Your task to perform on an android device: What is the news today? Image 0: 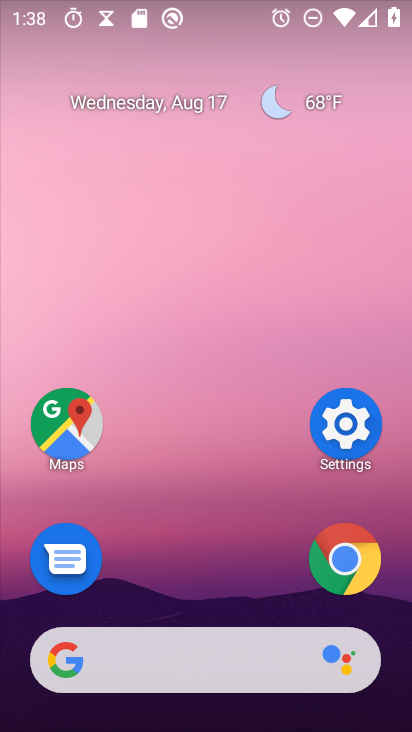
Step 0: click (139, 654)
Your task to perform on an android device: What is the news today? Image 1: 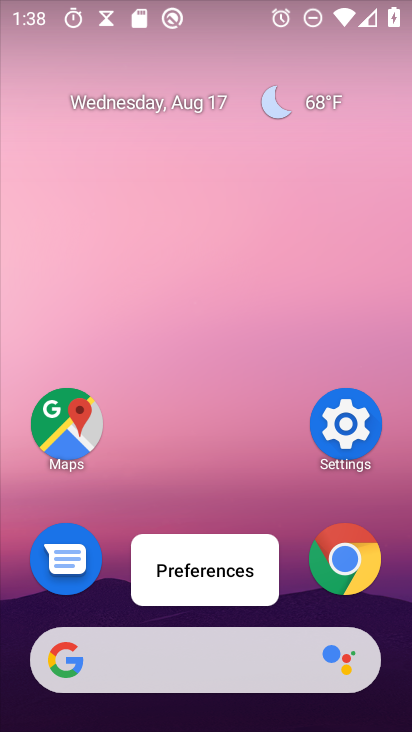
Step 1: click (164, 647)
Your task to perform on an android device: What is the news today? Image 2: 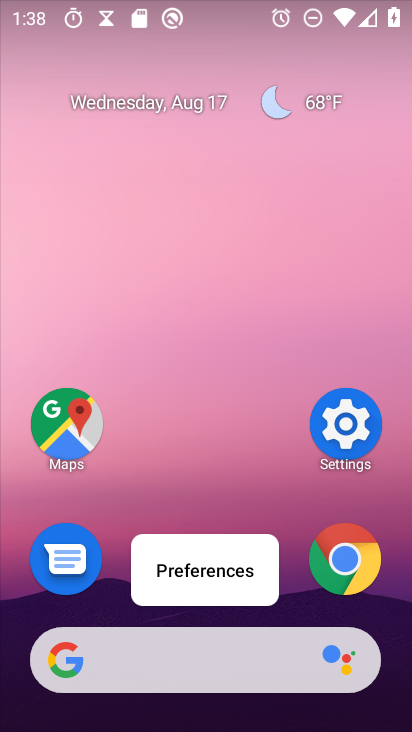
Step 2: click (164, 647)
Your task to perform on an android device: What is the news today? Image 3: 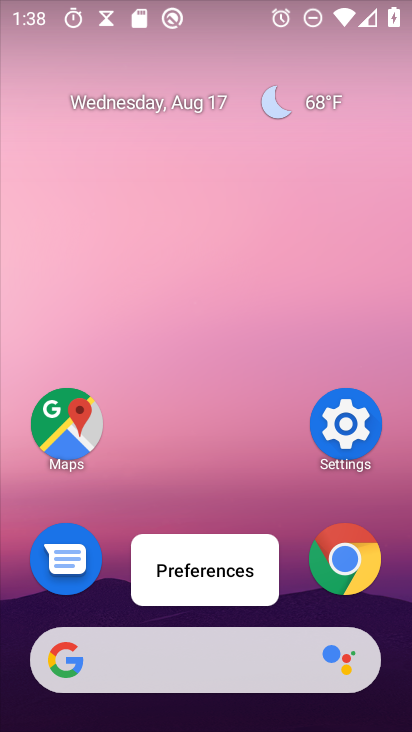
Step 3: click (179, 650)
Your task to perform on an android device: What is the news today? Image 4: 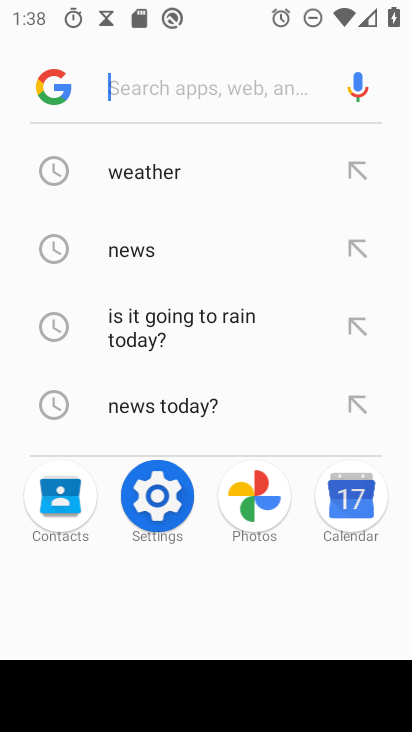
Step 4: click (130, 248)
Your task to perform on an android device: What is the news today? Image 5: 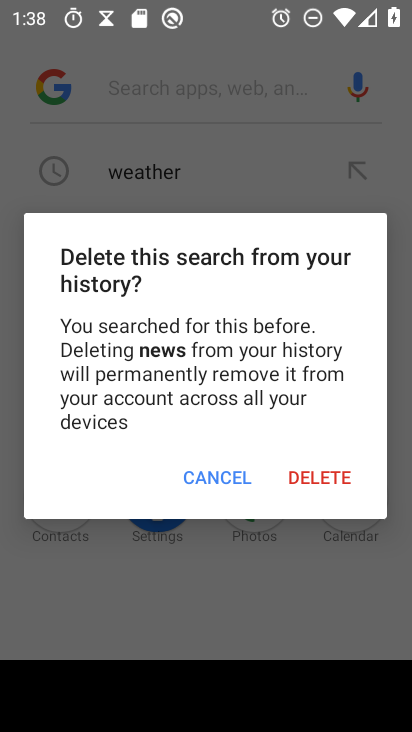
Step 5: click (219, 482)
Your task to perform on an android device: What is the news today? Image 6: 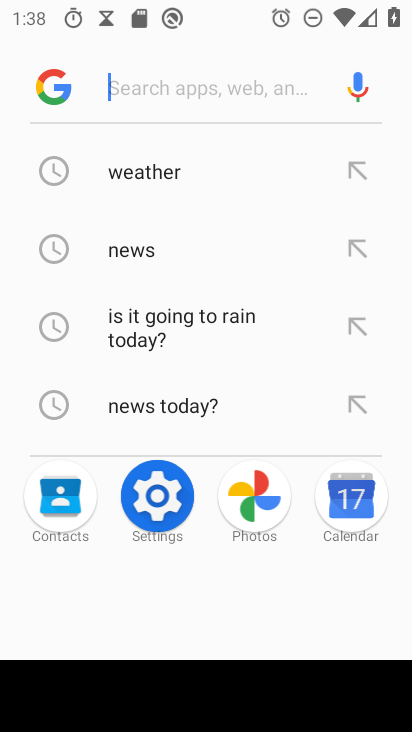
Step 6: click (127, 249)
Your task to perform on an android device: What is the news today? Image 7: 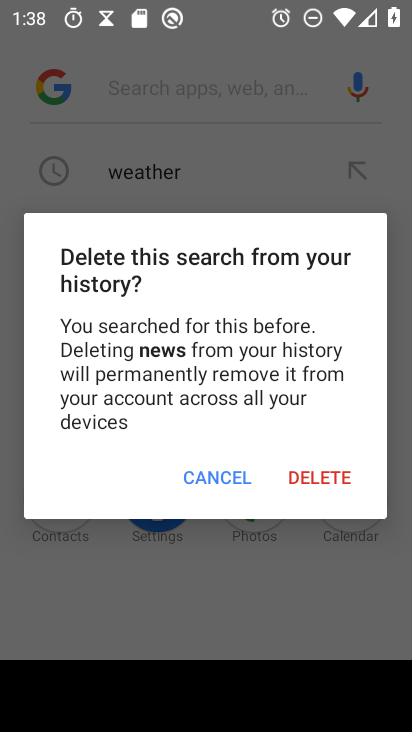
Step 7: click (215, 467)
Your task to perform on an android device: What is the news today? Image 8: 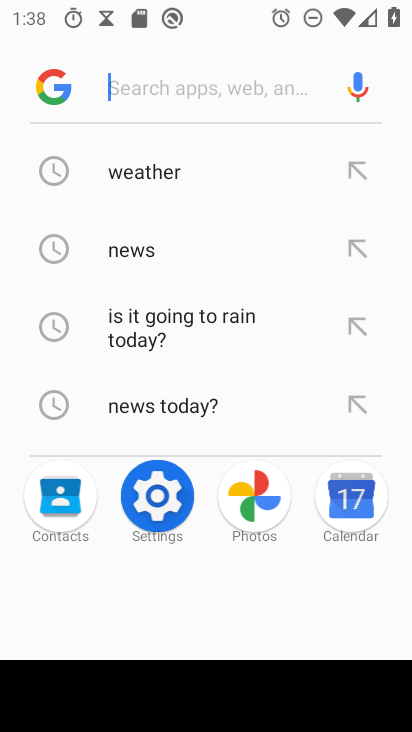
Step 8: click (116, 242)
Your task to perform on an android device: What is the news today? Image 9: 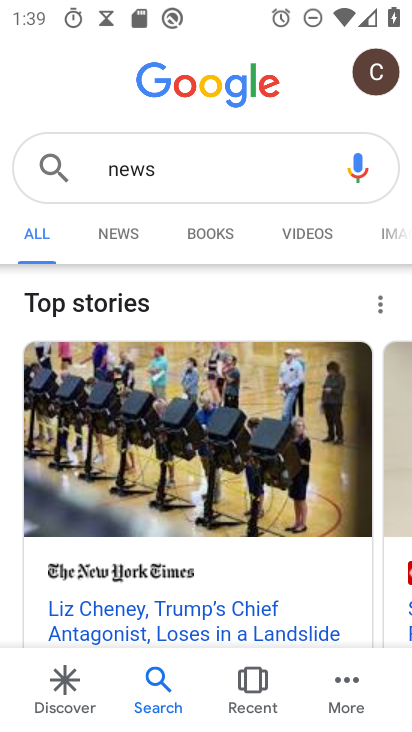
Step 9: click (125, 225)
Your task to perform on an android device: What is the news today? Image 10: 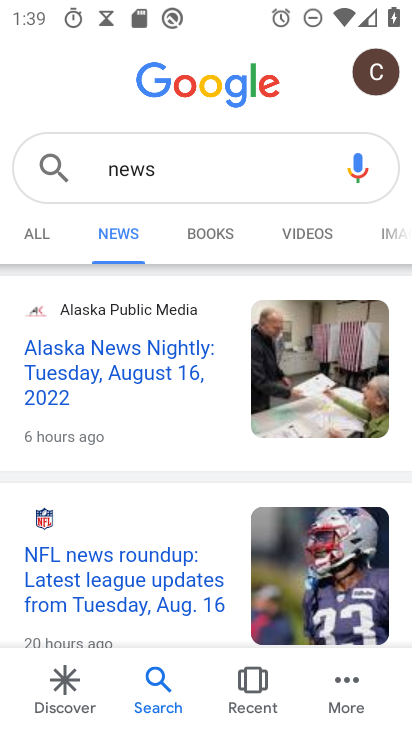
Step 10: task complete